Your task to perform on an android device: Open display settings Image 0: 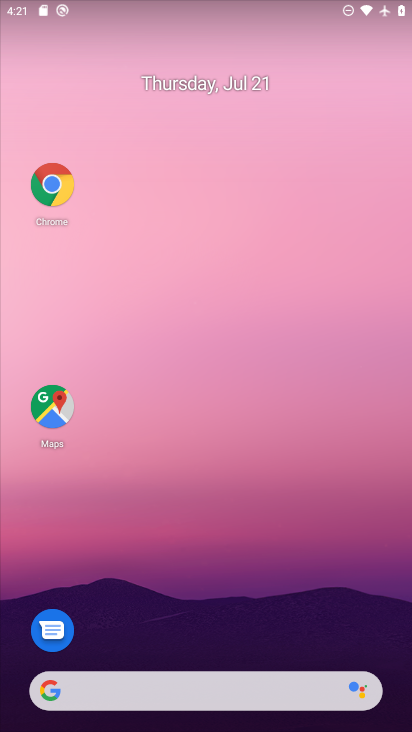
Step 0: drag from (231, 678) to (198, 101)
Your task to perform on an android device: Open display settings Image 1: 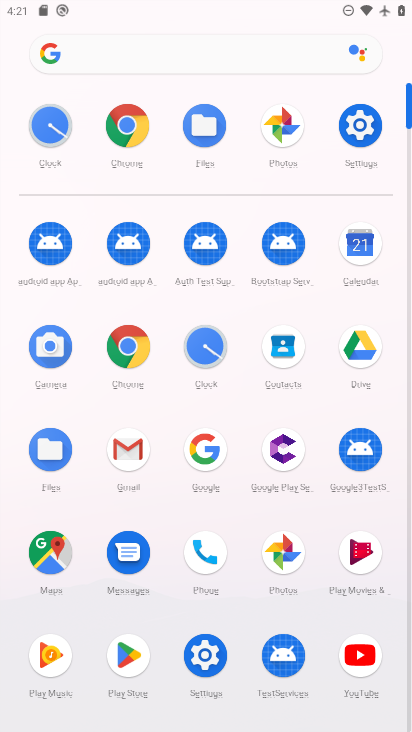
Step 1: click (218, 655)
Your task to perform on an android device: Open display settings Image 2: 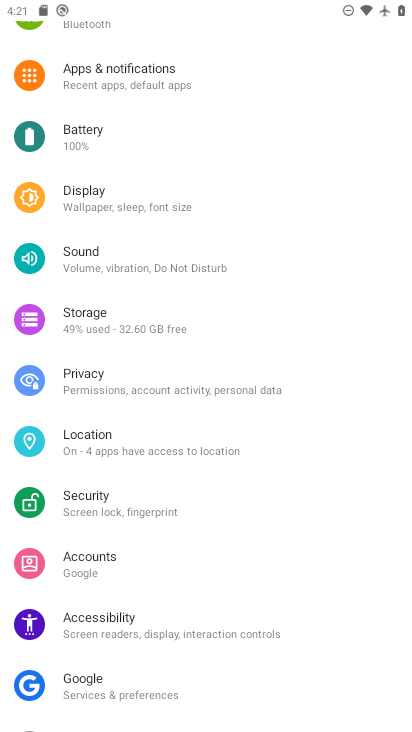
Step 2: click (87, 205)
Your task to perform on an android device: Open display settings Image 3: 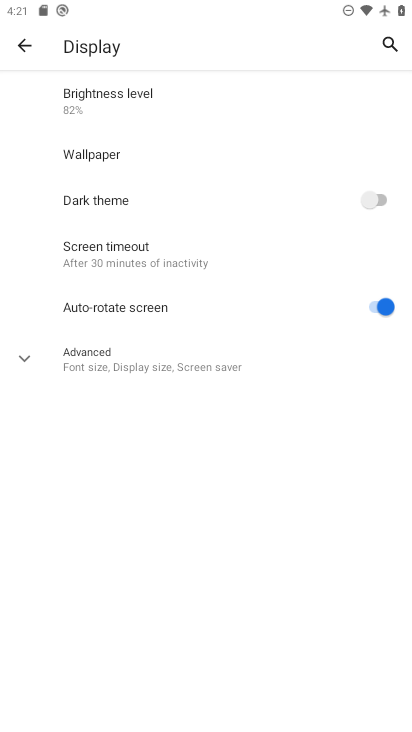
Step 3: click (104, 355)
Your task to perform on an android device: Open display settings Image 4: 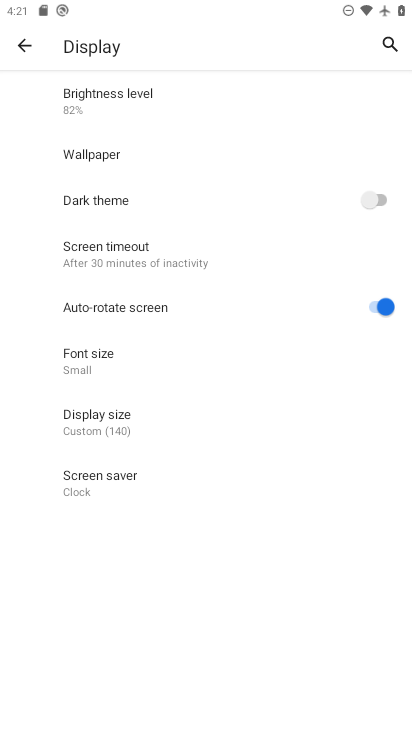
Step 4: task complete